Your task to perform on an android device: see sites visited before in the chrome app Image 0: 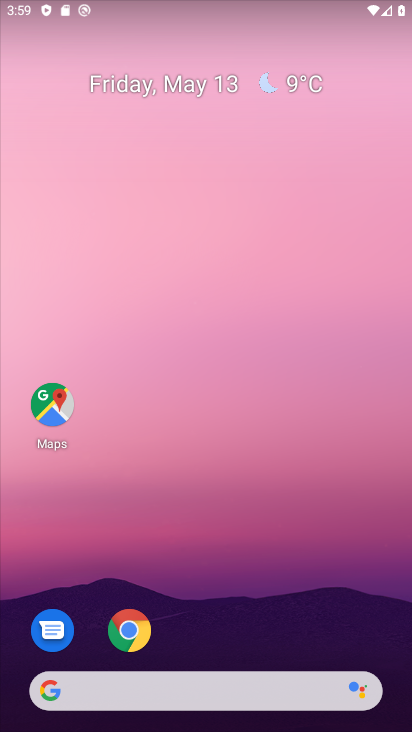
Step 0: drag from (288, 554) to (23, 30)
Your task to perform on an android device: see sites visited before in the chrome app Image 1: 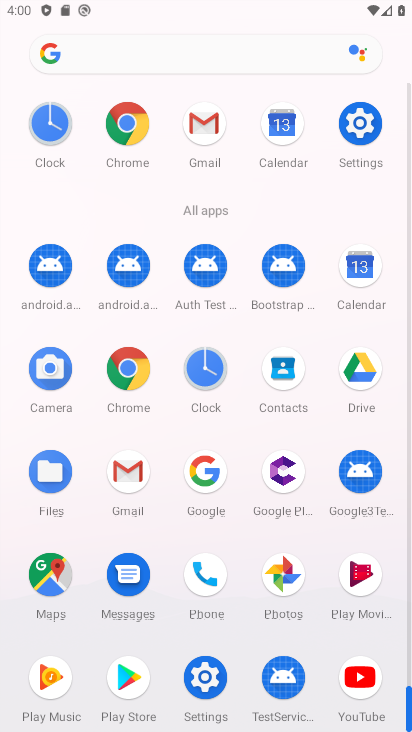
Step 1: drag from (15, 471) to (25, 230)
Your task to perform on an android device: see sites visited before in the chrome app Image 2: 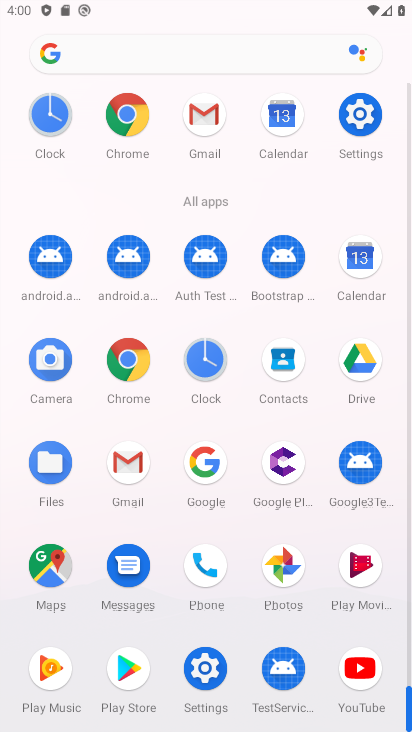
Step 2: click (127, 361)
Your task to perform on an android device: see sites visited before in the chrome app Image 3: 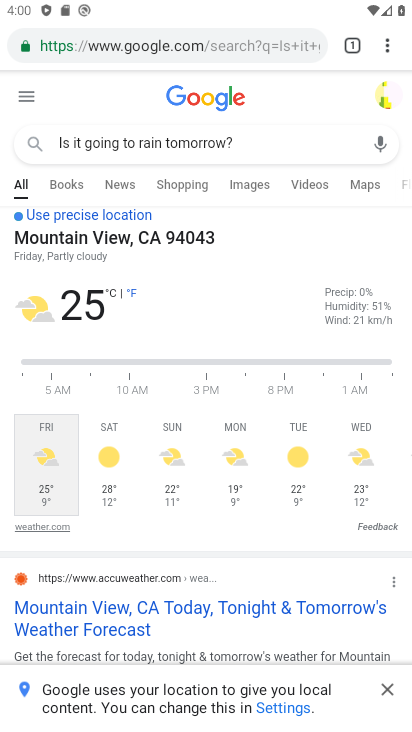
Step 3: task complete